Your task to perform on an android device: Find coffee shops on Maps Image 0: 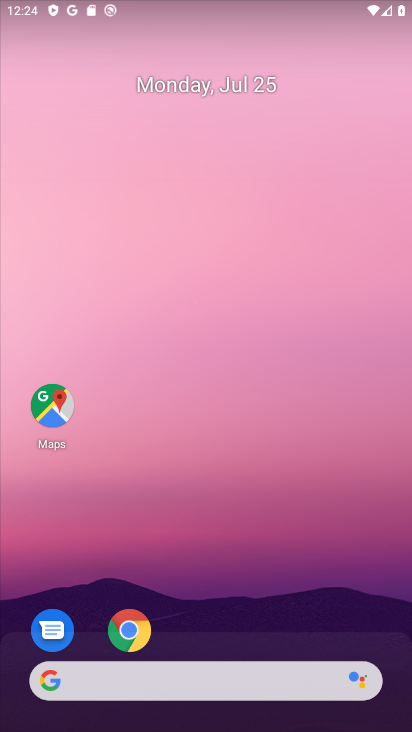
Step 0: click (202, 655)
Your task to perform on an android device: Find coffee shops on Maps Image 1: 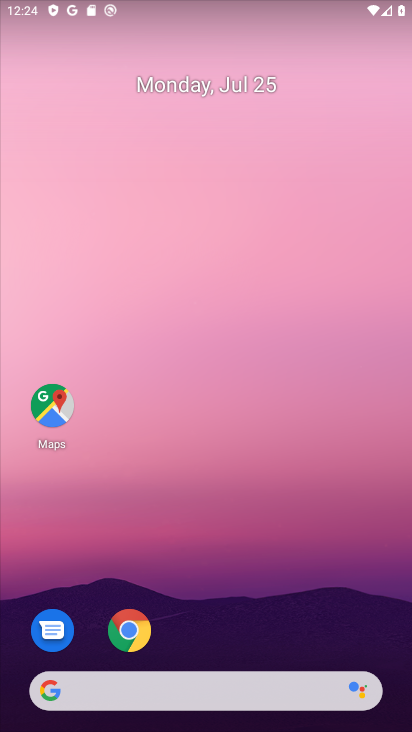
Step 1: click (49, 408)
Your task to perform on an android device: Find coffee shops on Maps Image 2: 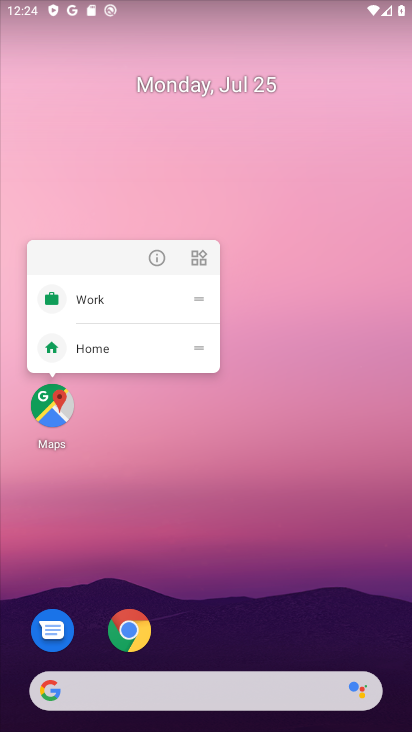
Step 2: click (40, 417)
Your task to perform on an android device: Find coffee shops on Maps Image 3: 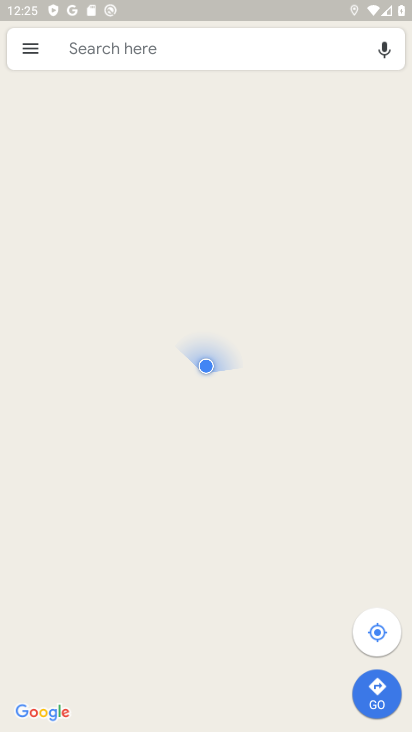
Step 3: click (33, 56)
Your task to perform on an android device: Find coffee shops on Maps Image 4: 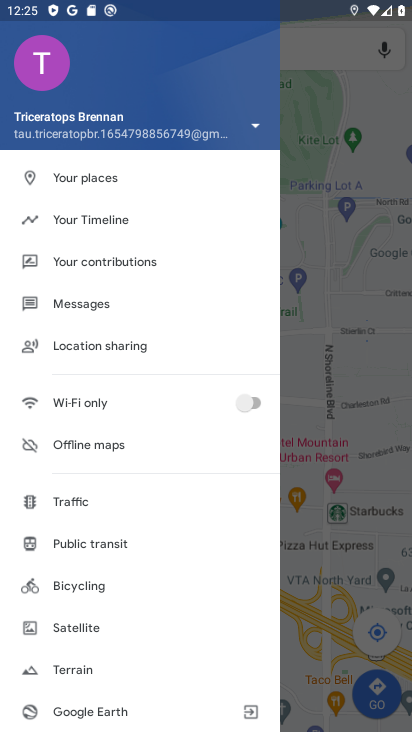
Step 4: press back button
Your task to perform on an android device: Find coffee shops on Maps Image 5: 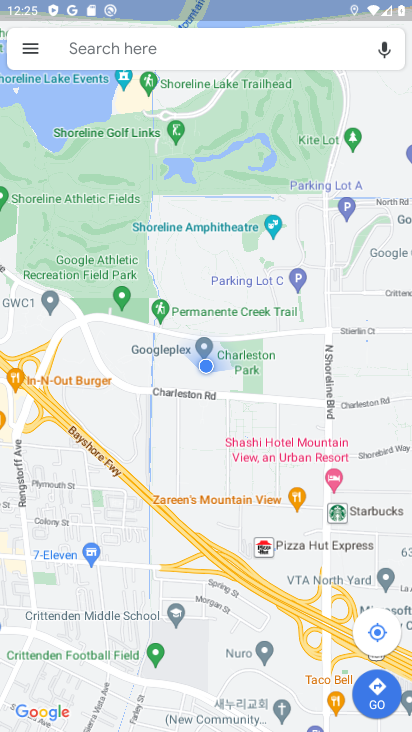
Step 5: click (220, 42)
Your task to perform on an android device: Find coffee shops on Maps Image 6: 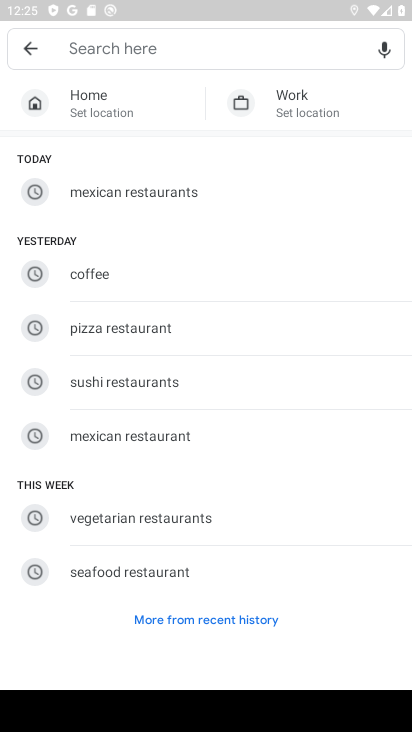
Step 6: type "coffee shops"
Your task to perform on an android device: Find coffee shops on Maps Image 7: 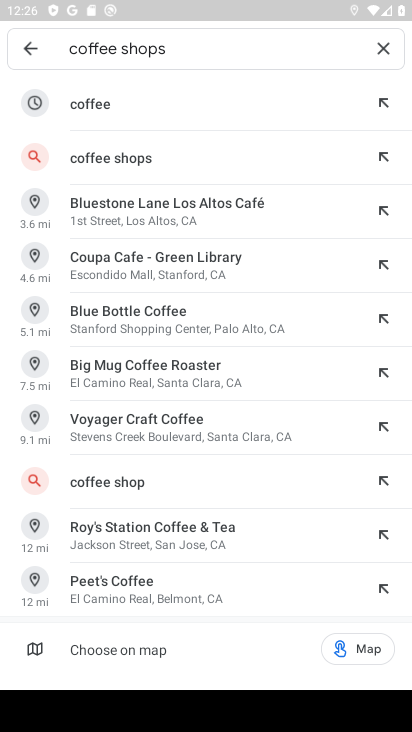
Step 7: click (113, 150)
Your task to perform on an android device: Find coffee shops on Maps Image 8: 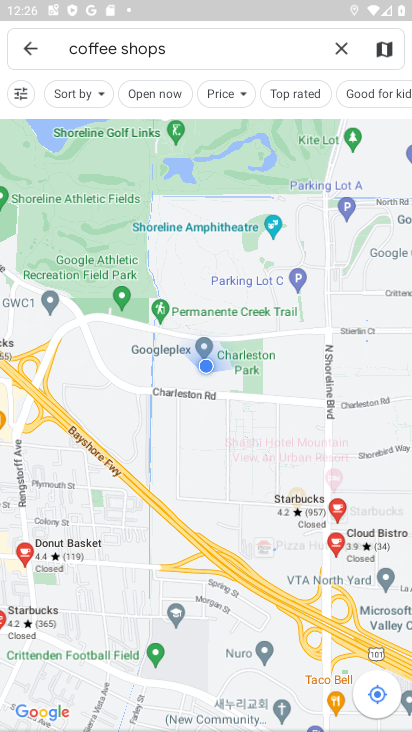
Step 8: task complete